Your task to perform on an android device: What's on my calendar tomorrow? Image 0: 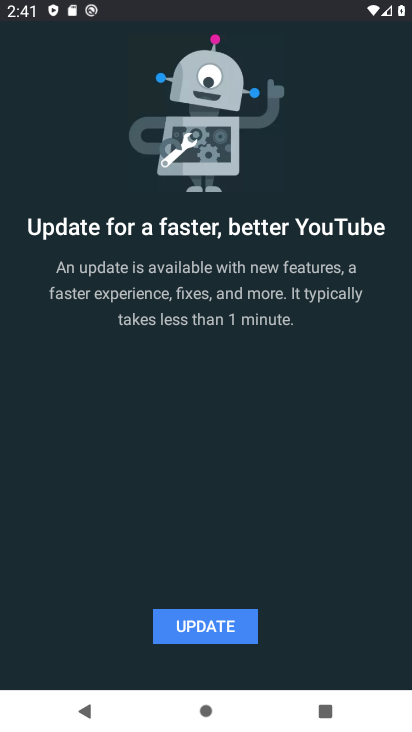
Step 0: press home button
Your task to perform on an android device: What's on my calendar tomorrow? Image 1: 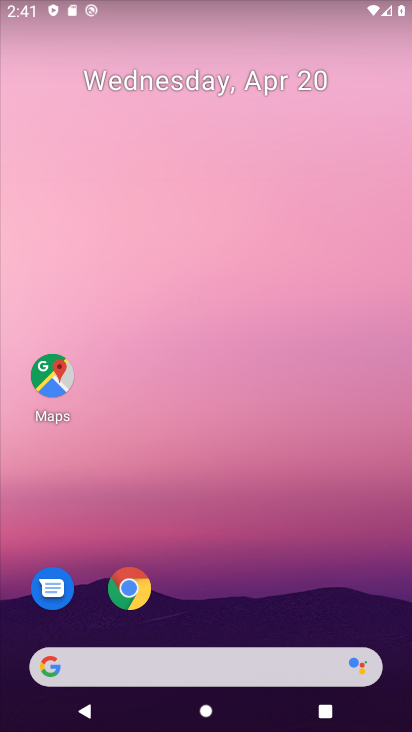
Step 1: drag from (234, 601) to (202, 32)
Your task to perform on an android device: What's on my calendar tomorrow? Image 2: 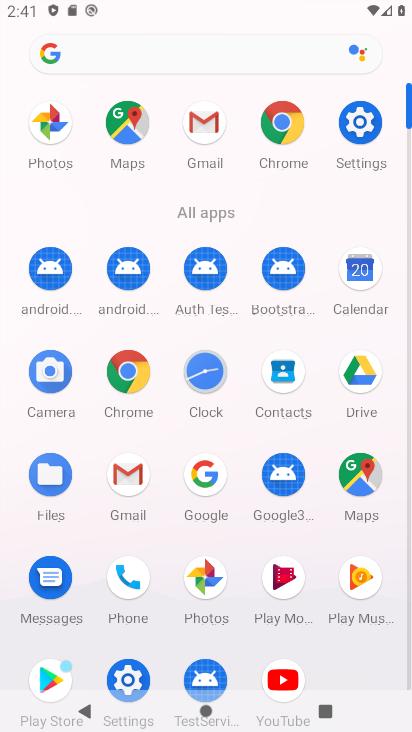
Step 2: click (361, 265)
Your task to perform on an android device: What's on my calendar tomorrow? Image 3: 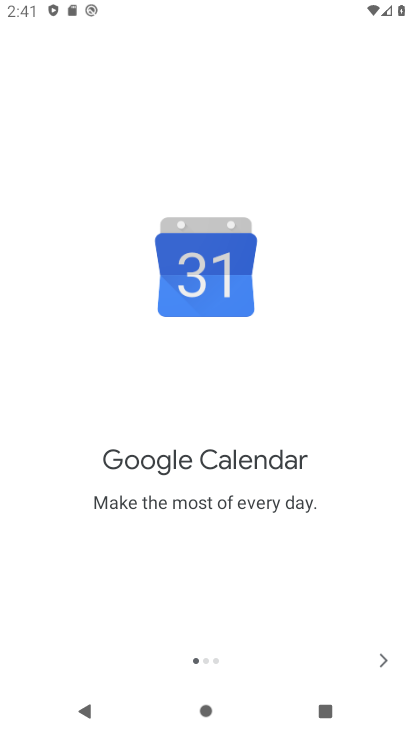
Step 3: click (387, 657)
Your task to perform on an android device: What's on my calendar tomorrow? Image 4: 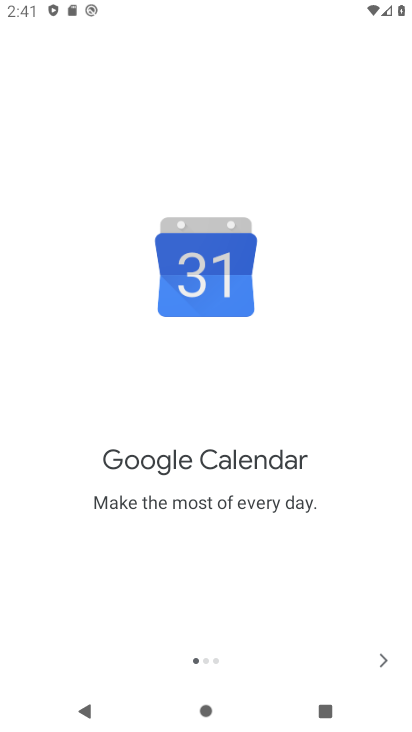
Step 4: click (387, 657)
Your task to perform on an android device: What's on my calendar tomorrow? Image 5: 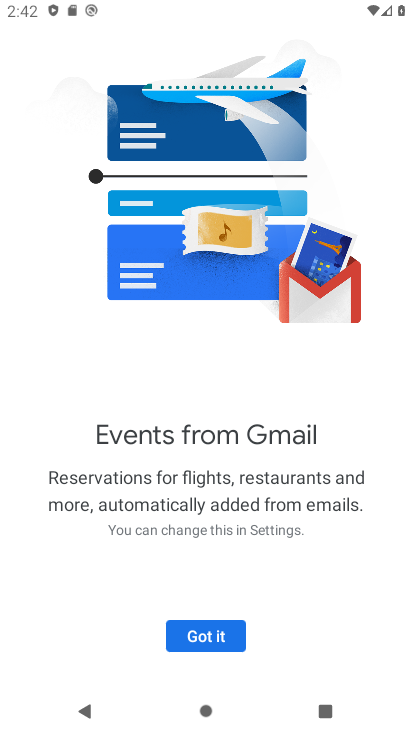
Step 5: click (204, 641)
Your task to perform on an android device: What's on my calendar tomorrow? Image 6: 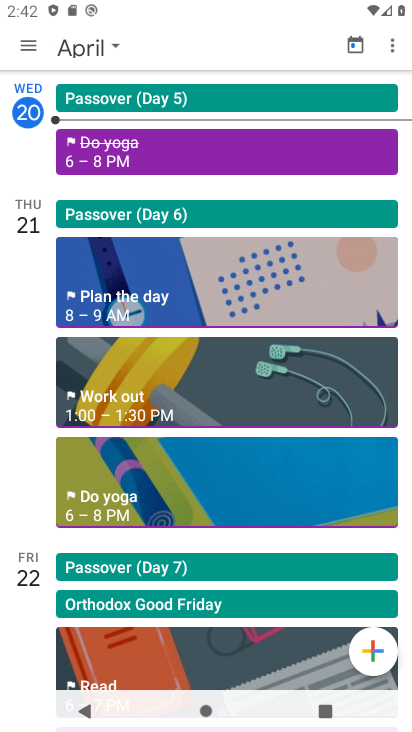
Step 6: click (30, 222)
Your task to perform on an android device: What's on my calendar tomorrow? Image 7: 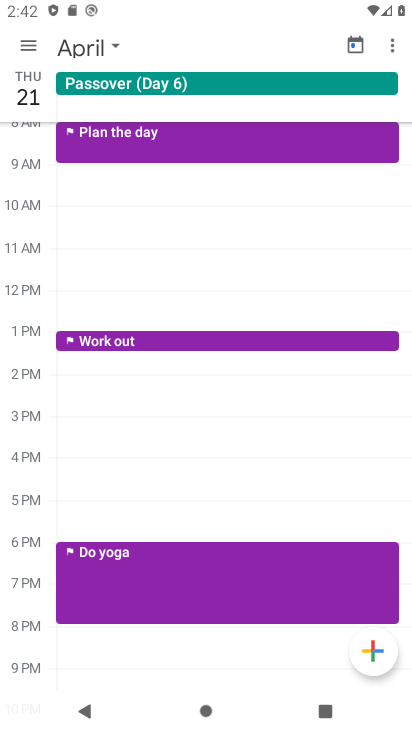
Step 7: task complete